Your task to perform on an android device: Do I have any events this weekend? Image 0: 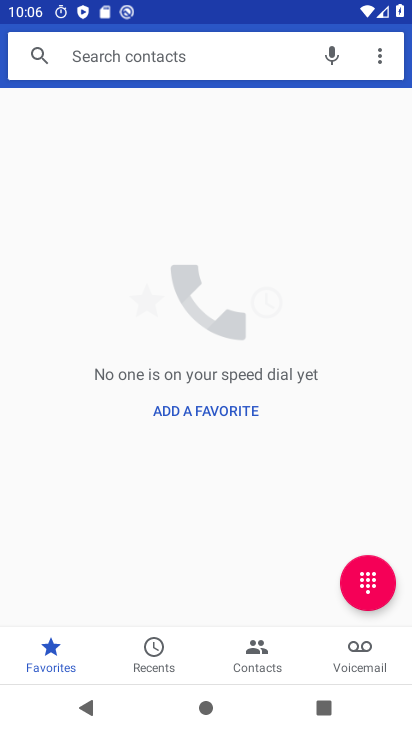
Step 0: press home button
Your task to perform on an android device: Do I have any events this weekend? Image 1: 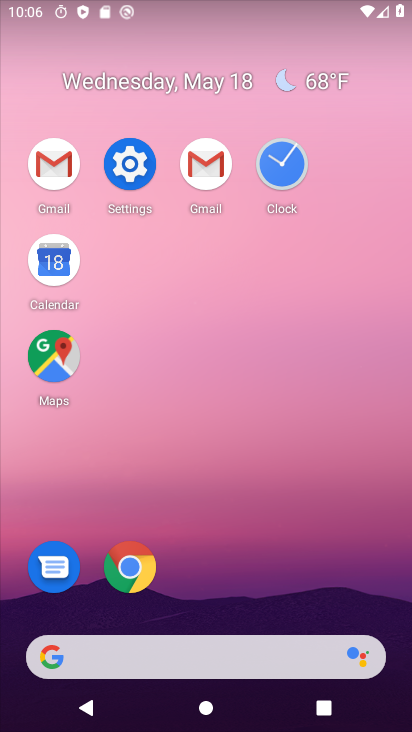
Step 1: click (61, 265)
Your task to perform on an android device: Do I have any events this weekend? Image 2: 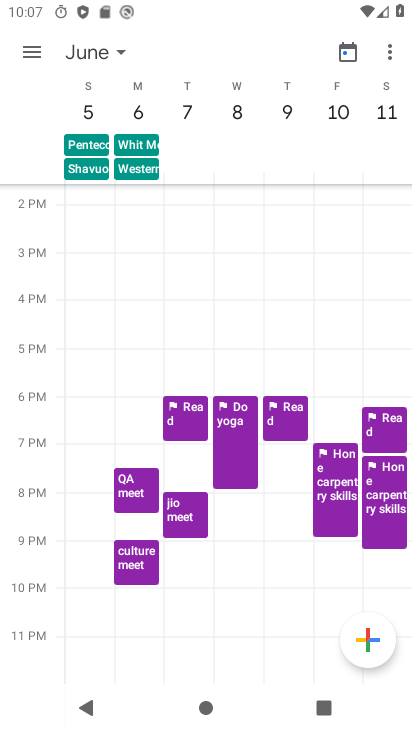
Step 2: click (122, 55)
Your task to perform on an android device: Do I have any events this weekend? Image 3: 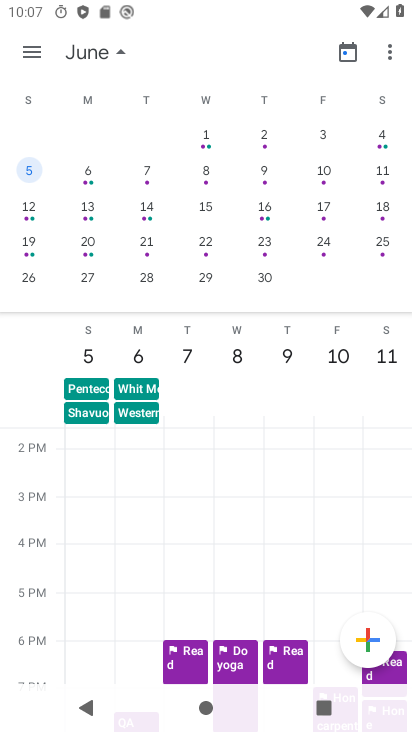
Step 3: drag from (24, 223) to (404, 131)
Your task to perform on an android device: Do I have any events this weekend? Image 4: 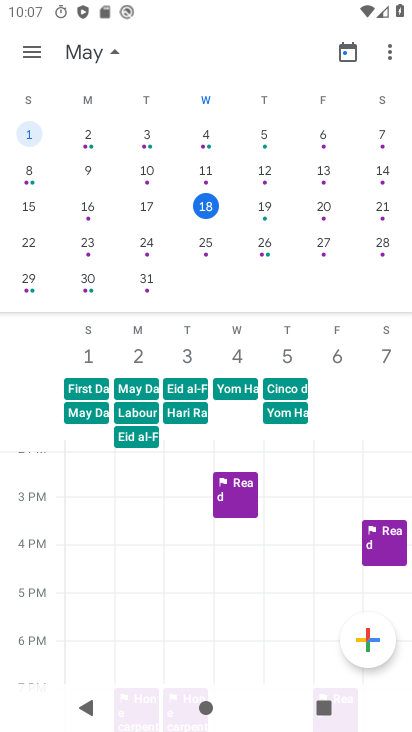
Step 4: click (12, 34)
Your task to perform on an android device: Do I have any events this weekend? Image 5: 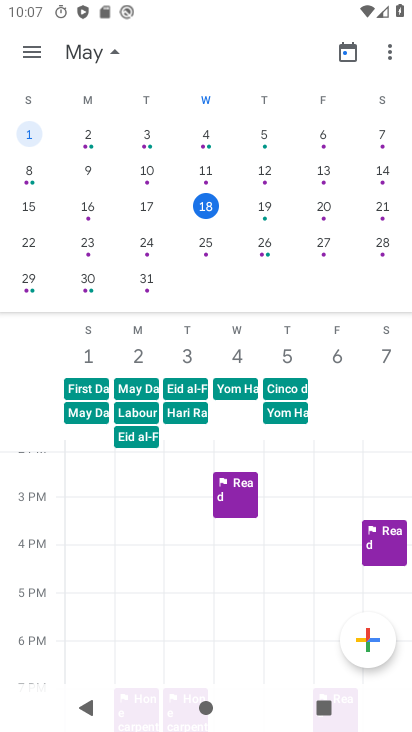
Step 5: click (28, 50)
Your task to perform on an android device: Do I have any events this weekend? Image 6: 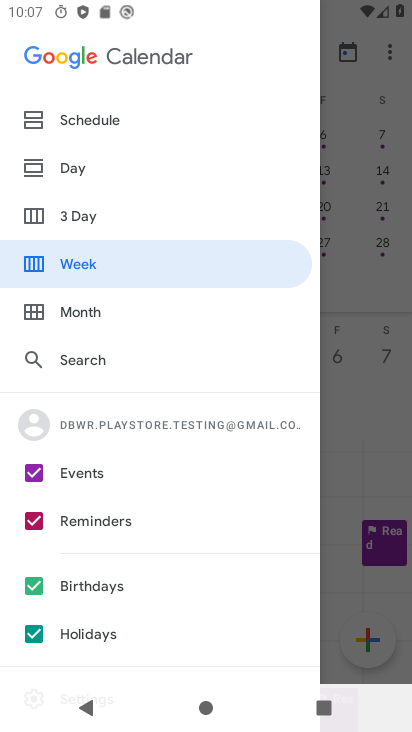
Step 6: click (146, 258)
Your task to perform on an android device: Do I have any events this weekend? Image 7: 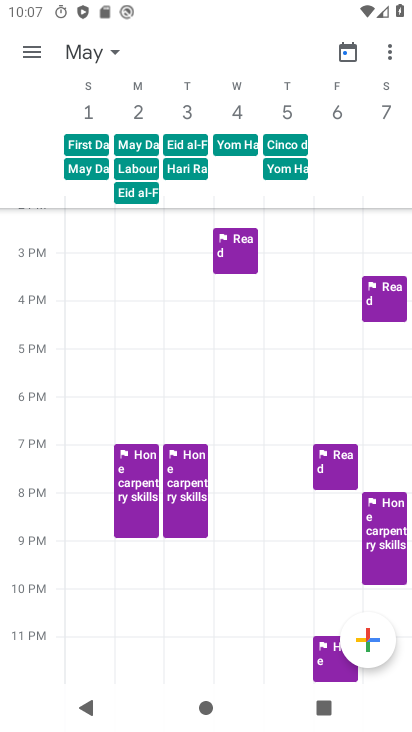
Step 7: drag from (390, 107) to (15, 144)
Your task to perform on an android device: Do I have any events this weekend? Image 8: 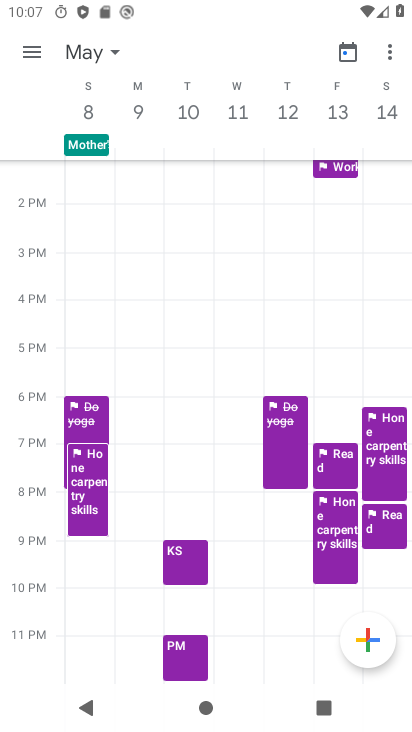
Step 8: drag from (388, 111) to (0, 162)
Your task to perform on an android device: Do I have any events this weekend? Image 9: 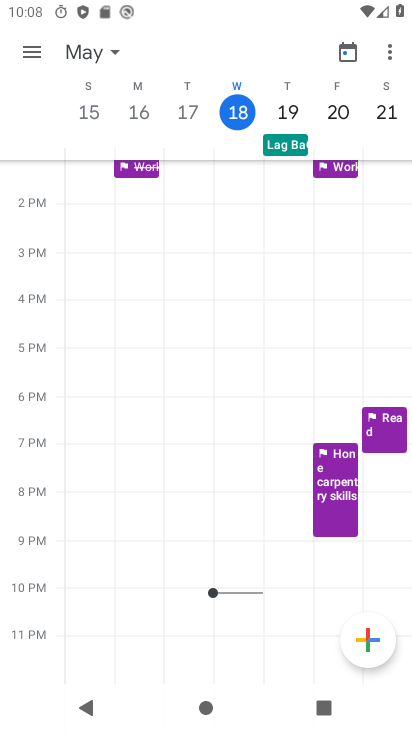
Step 9: click (391, 106)
Your task to perform on an android device: Do I have any events this weekend? Image 10: 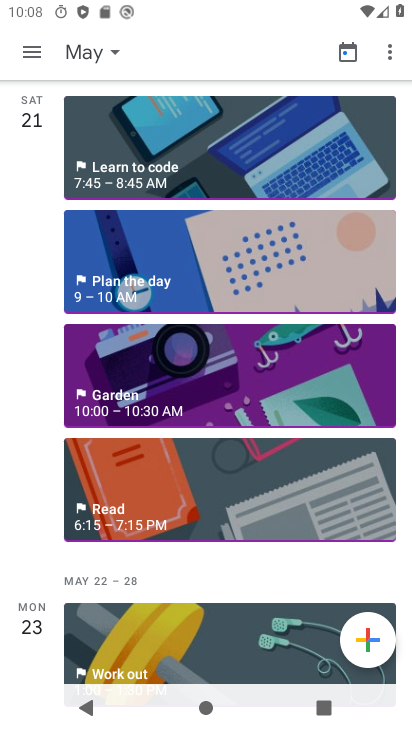
Step 10: task complete